Your task to perform on an android device: refresh tabs in the chrome app Image 0: 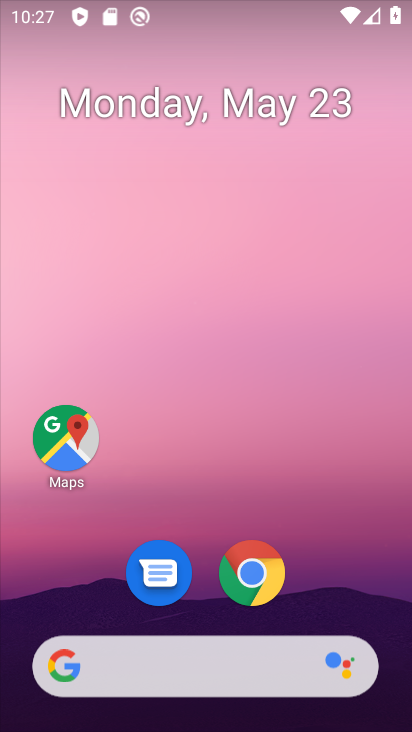
Step 0: click (265, 578)
Your task to perform on an android device: refresh tabs in the chrome app Image 1: 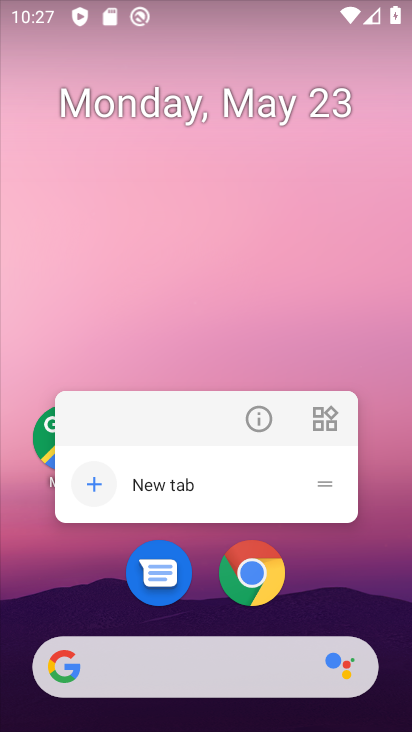
Step 1: click (256, 588)
Your task to perform on an android device: refresh tabs in the chrome app Image 2: 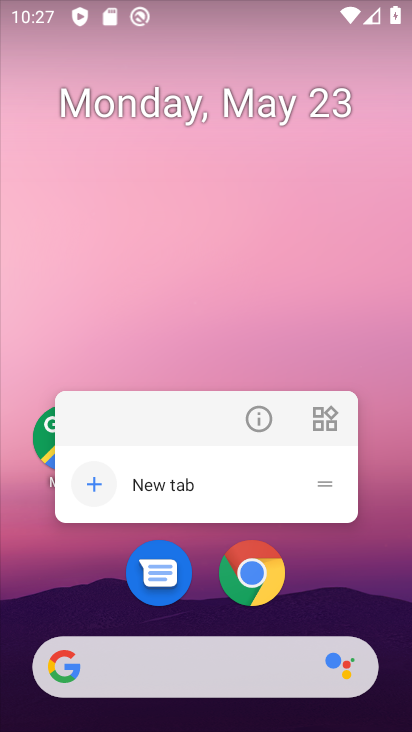
Step 2: click (251, 588)
Your task to perform on an android device: refresh tabs in the chrome app Image 3: 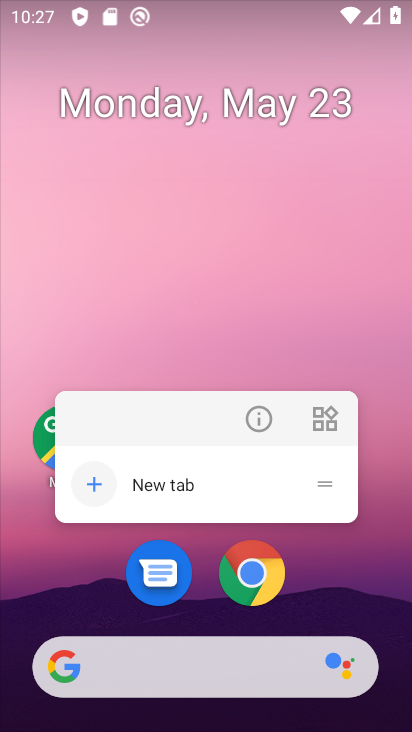
Step 3: click (252, 570)
Your task to perform on an android device: refresh tabs in the chrome app Image 4: 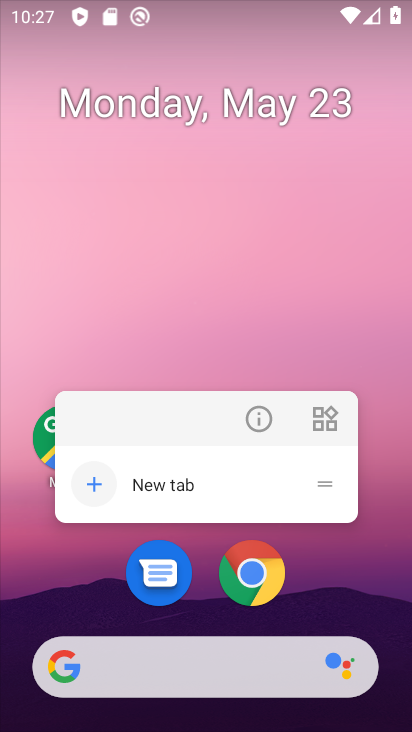
Step 4: click (261, 572)
Your task to perform on an android device: refresh tabs in the chrome app Image 5: 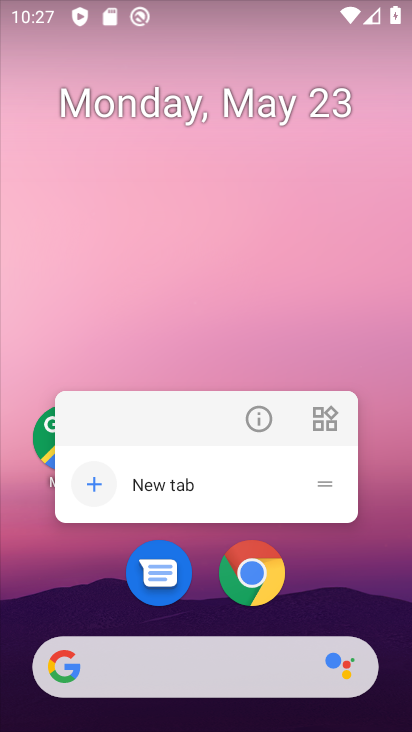
Step 5: click (257, 575)
Your task to perform on an android device: refresh tabs in the chrome app Image 6: 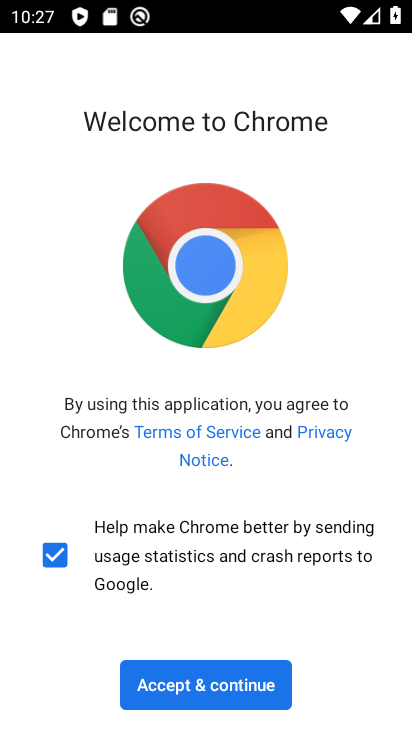
Step 6: click (258, 691)
Your task to perform on an android device: refresh tabs in the chrome app Image 7: 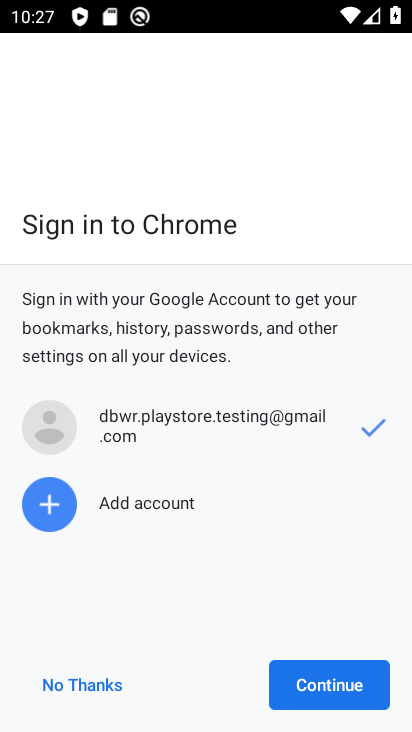
Step 7: click (310, 699)
Your task to perform on an android device: refresh tabs in the chrome app Image 8: 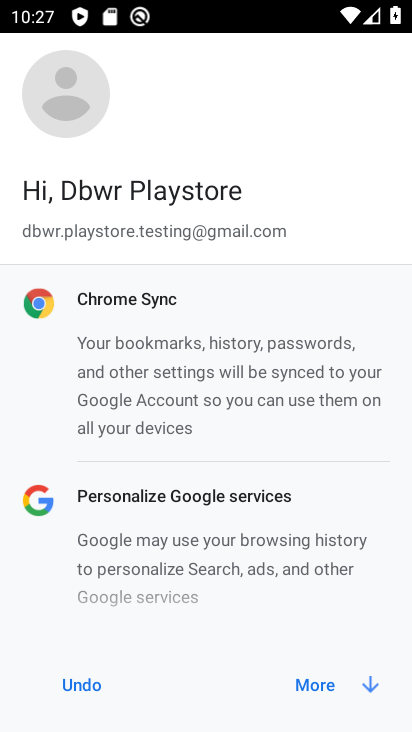
Step 8: click (310, 699)
Your task to perform on an android device: refresh tabs in the chrome app Image 9: 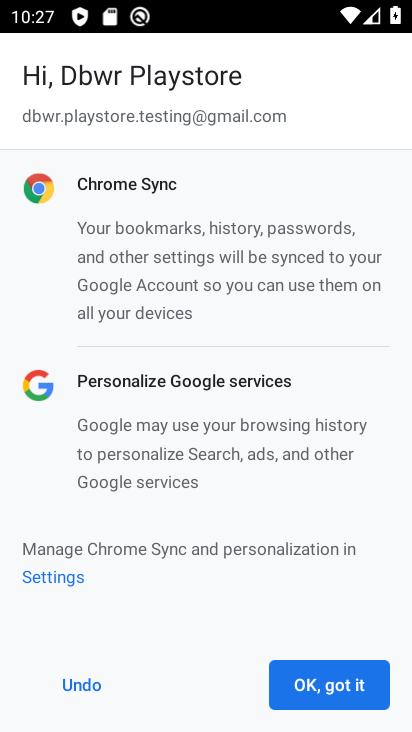
Step 9: click (310, 699)
Your task to perform on an android device: refresh tabs in the chrome app Image 10: 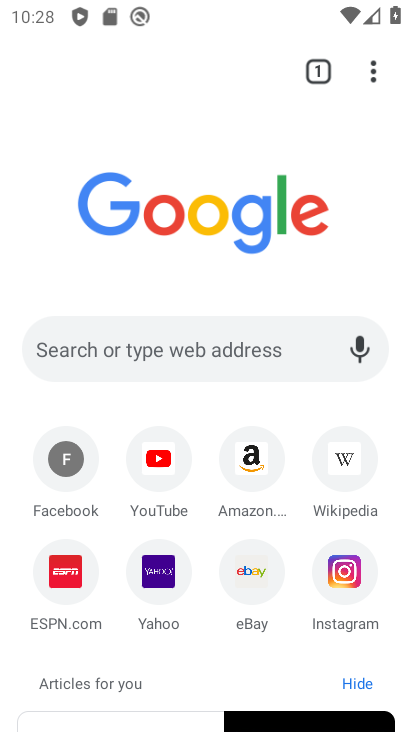
Step 10: click (389, 81)
Your task to perform on an android device: refresh tabs in the chrome app Image 11: 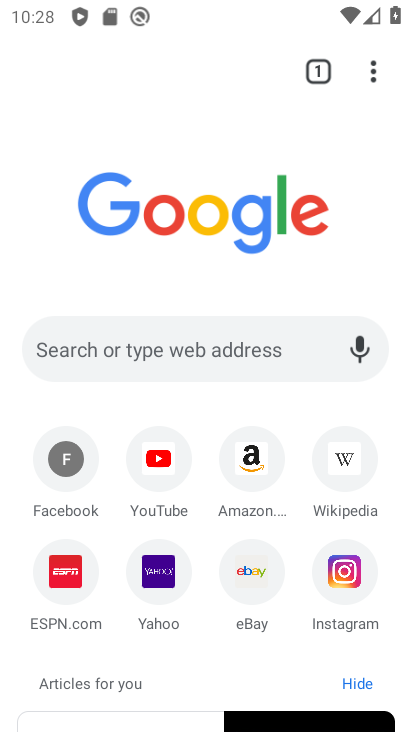
Step 11: task complete